Your task to perform on an android device: Show me popular games on the Play Store Image 0: 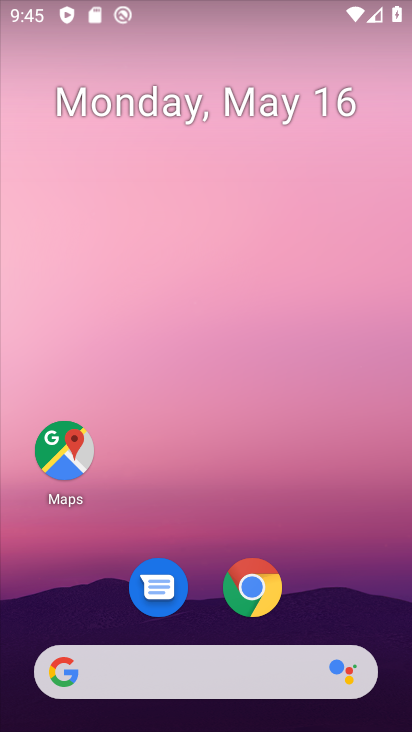
Step 0: drag from (188, 637) to (97, 104)
Your task to perform on an android device: Show me popular games on the Play Store Image 1: 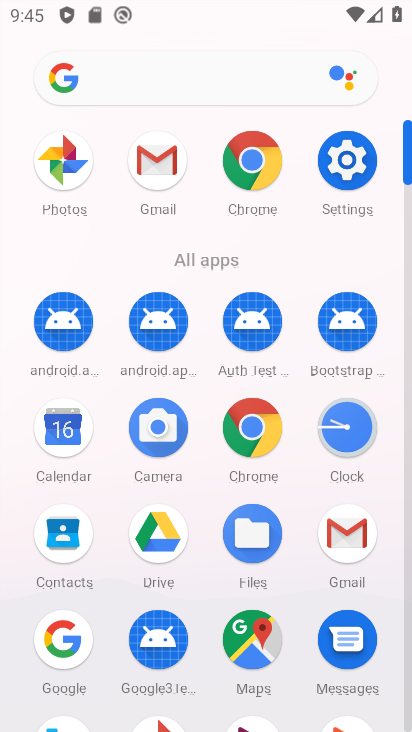
Step 1: drag from (109, 605) to (51, 174)
Your task to perform on an android device: Show me popular games on the Play Store Image 2: 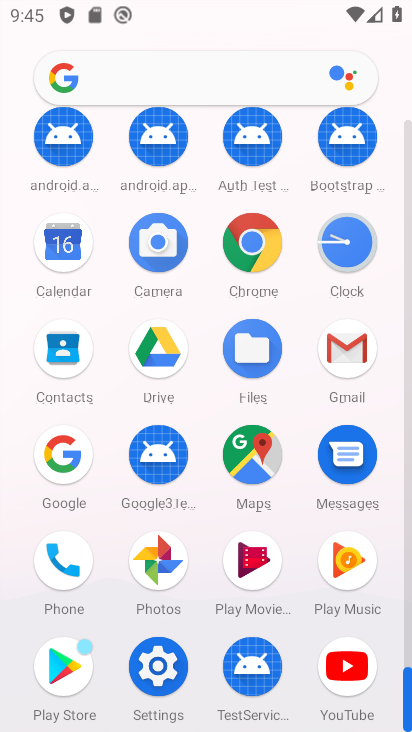
Step 2: click (72, 652)
Your task to perform on an android device: Show me popular games on the Play Store Image 3: 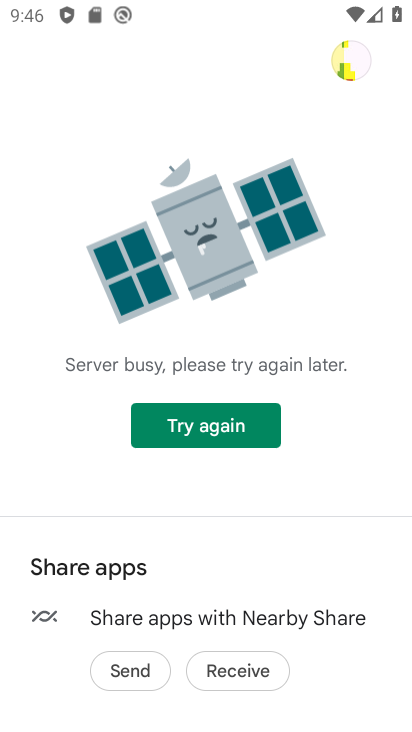
Step 3: click (217, 430)
Your task to perform on an android device: Show me popular games on the Play Store Image 4: 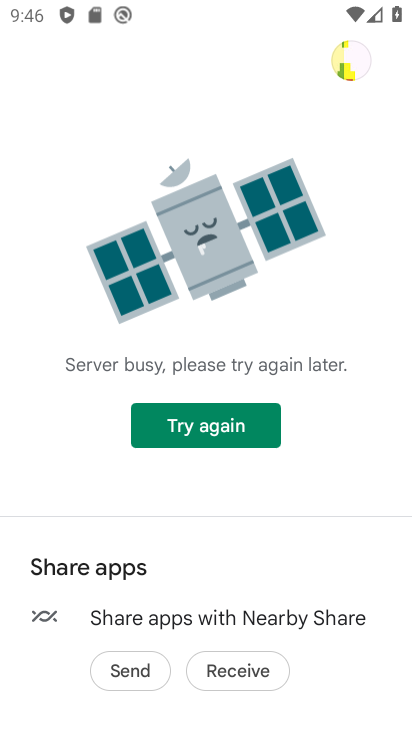
Step 4: task complete